Your task to perform on an android device: Go to Maps Image 0: 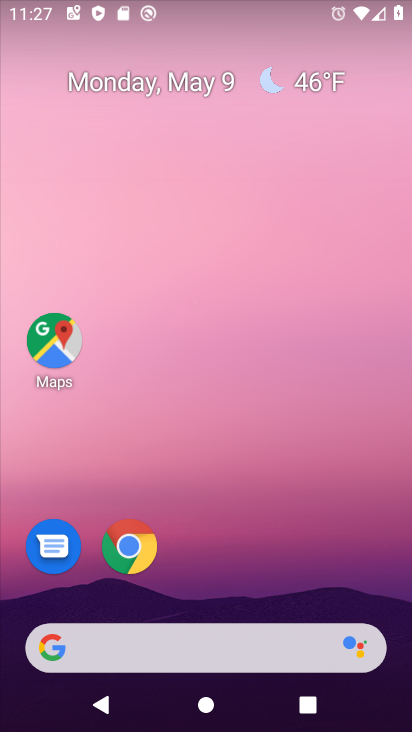
Step 0: click (51, 346)
Your task to perform on an android device: Go to Maps Image 1: 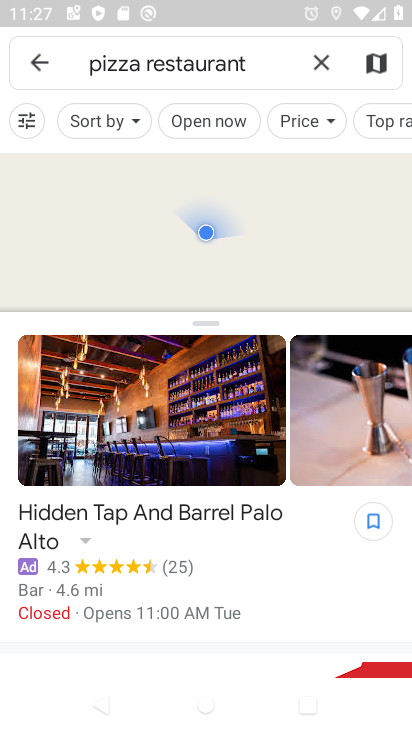
Step 1: click (311, 63)
Your task to perform on an android device: Go to Maps Image 2: 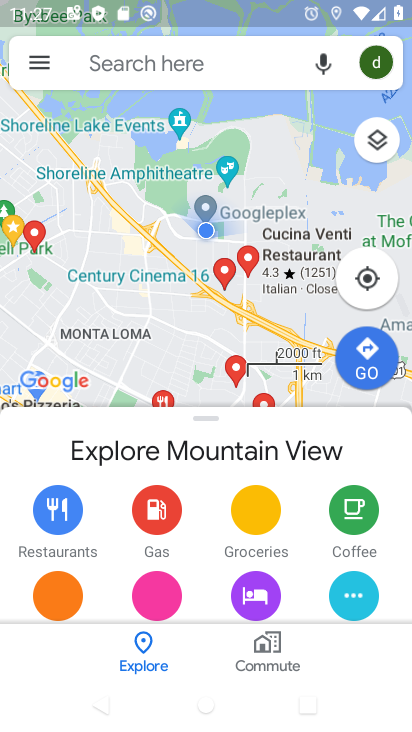
Step 2: task complete